Your task to perform on an android device: Search for flights from Mexico city to Boston Image 0: 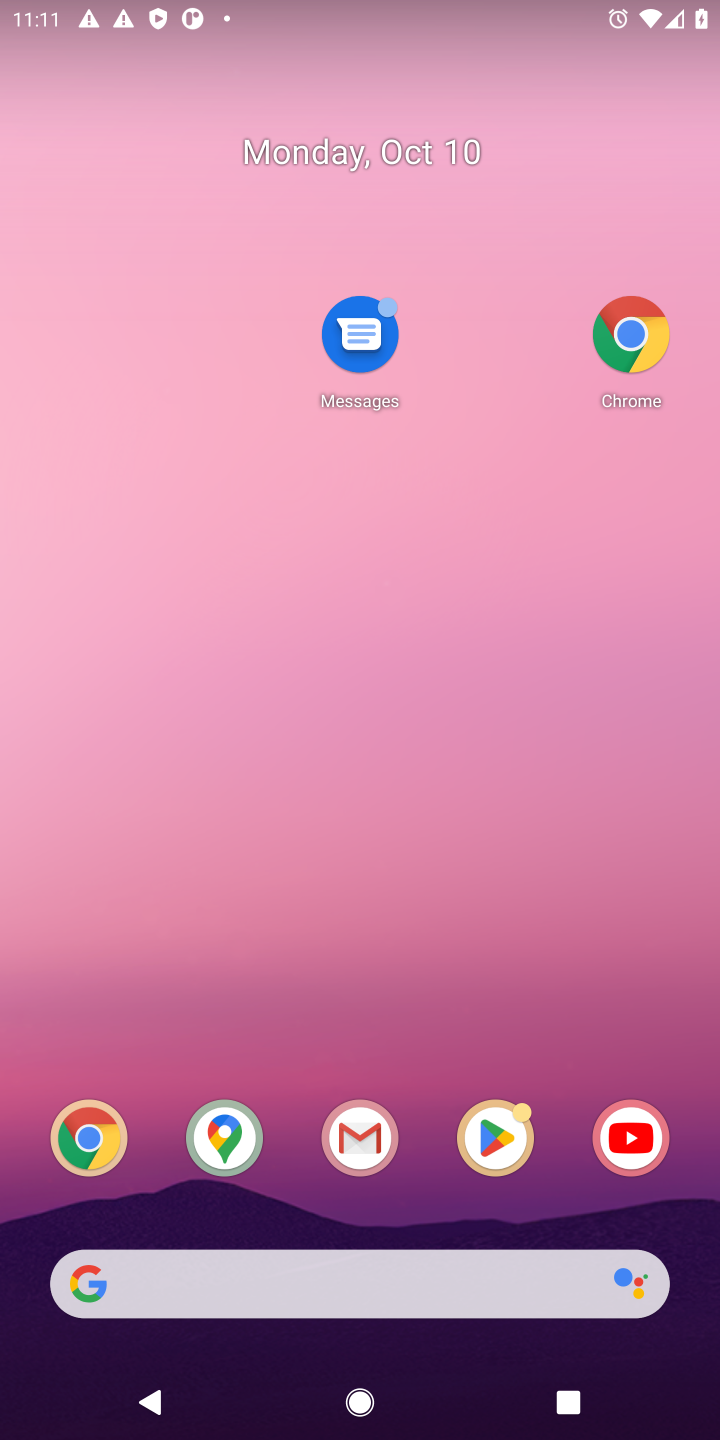
Step 0: click (644, 334)
Your task to perform on an android device: Search for flights from Mexico city to Boston Image 1: 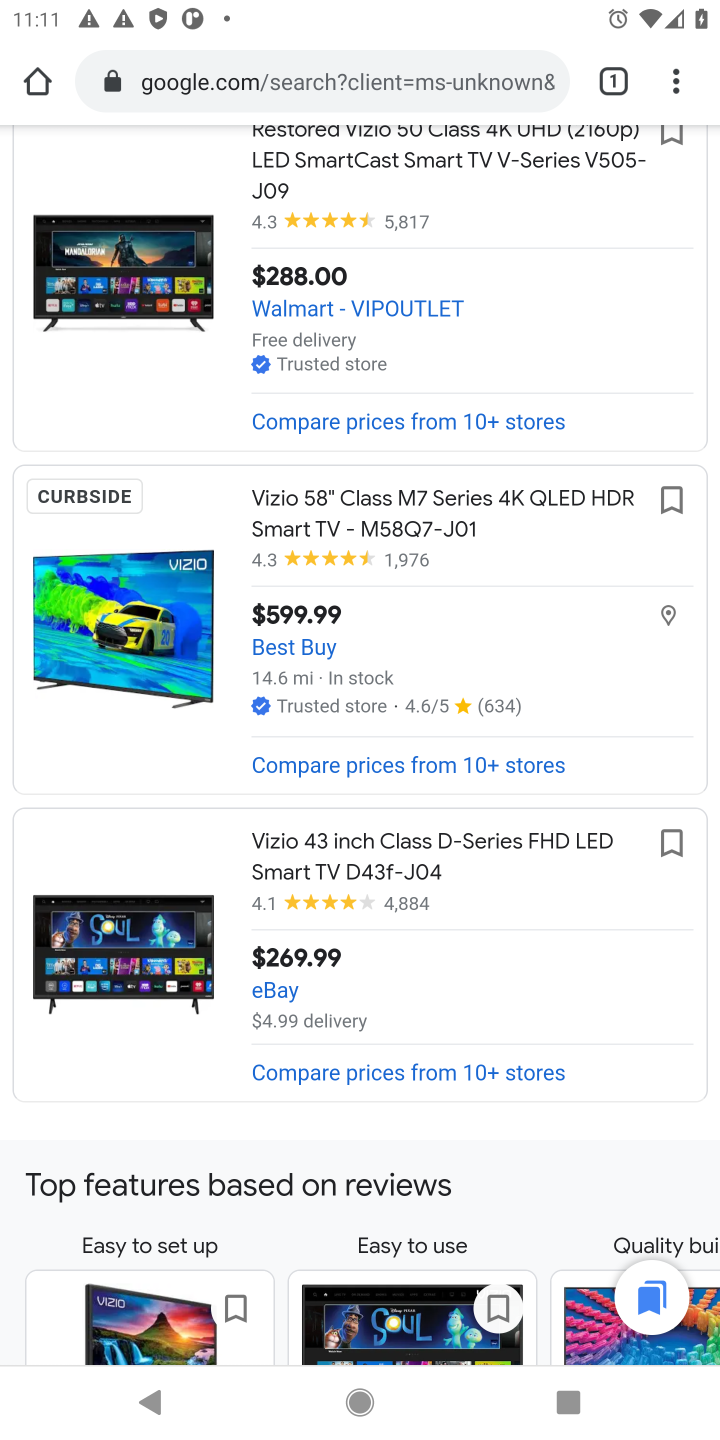
Step 1: click (361, 93)
Your task to perform on an android device: Search for flights from Mexico city to Boston Image 2: 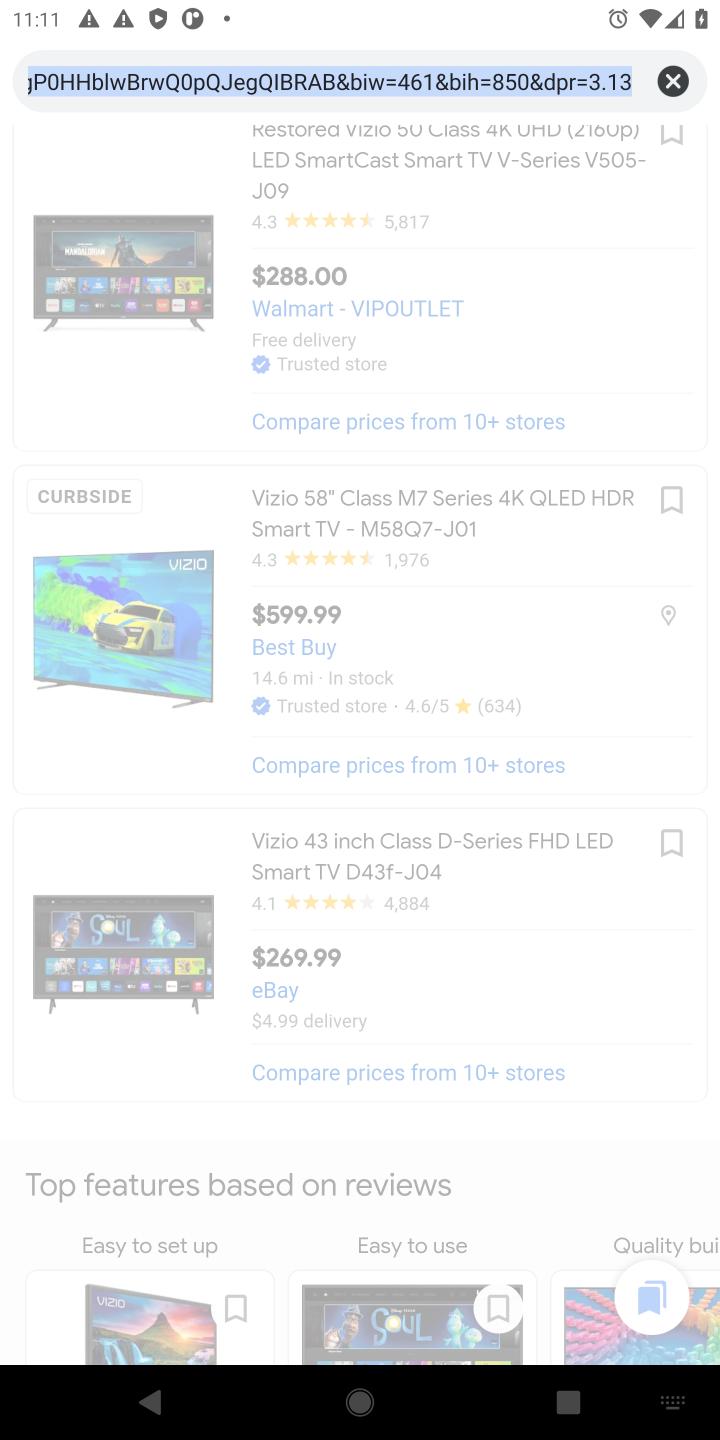
Step 2: type "flights from mexico city to boston"
Your task to perform on an android device: Search for flights from Mexico city to Boston Image 3: 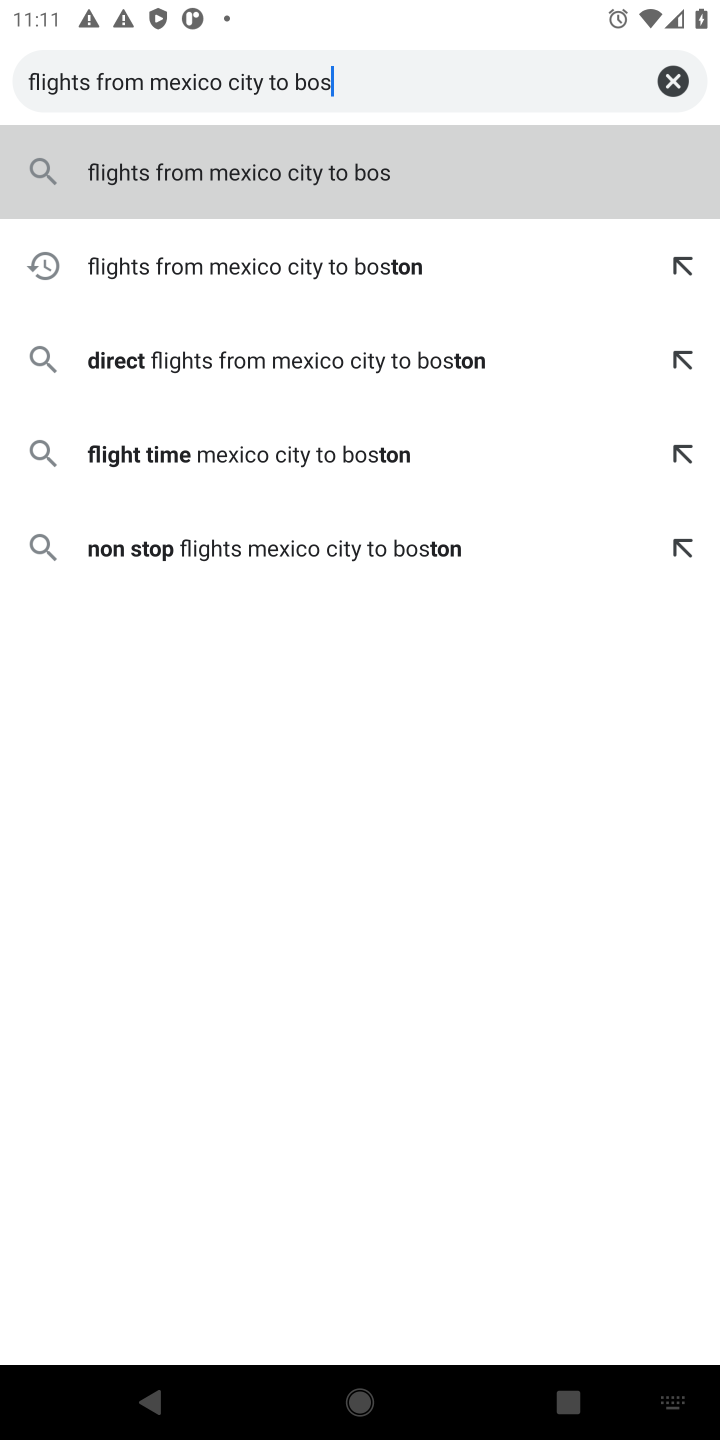
Step 3: type "ton"
Your task to perform on an android device: Search for flights from Mexico city to Boston Image 4: 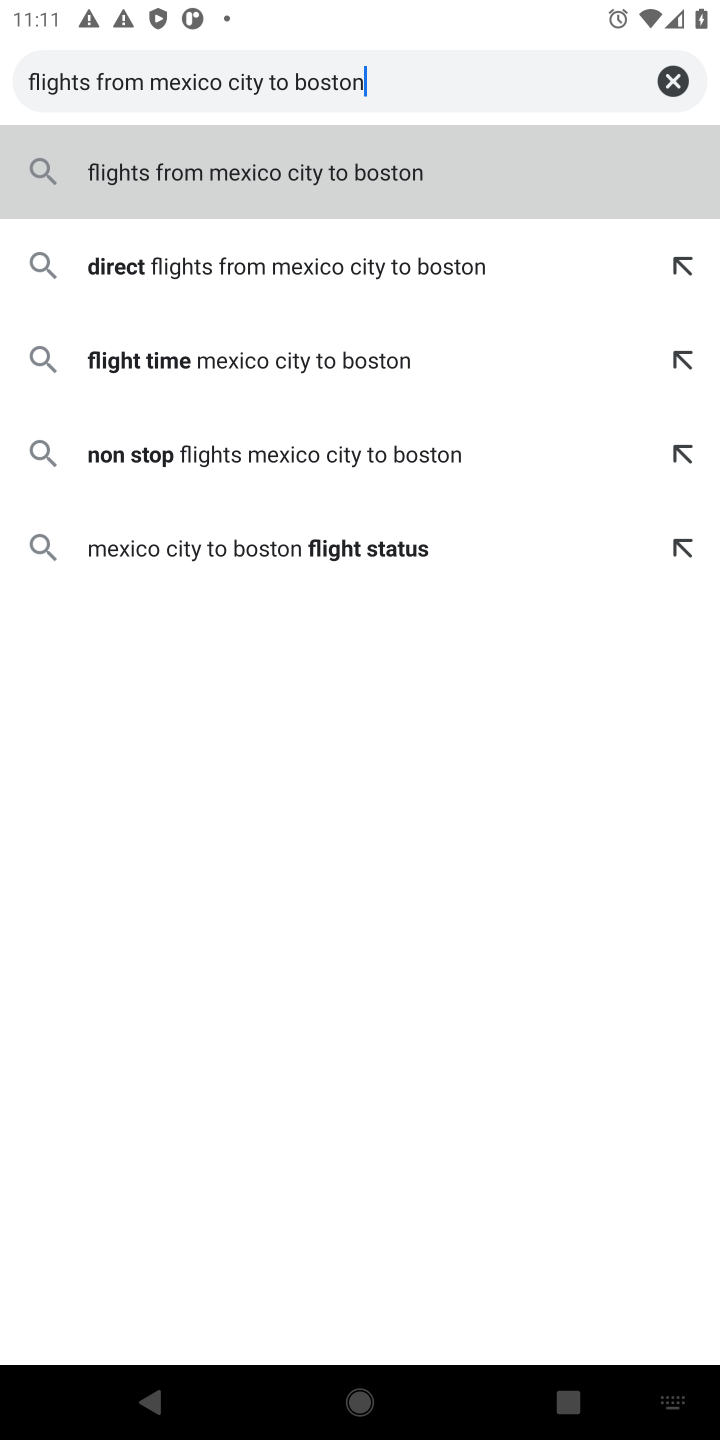
Step 4: press enter
Your task to perform on an android device: Search for flights from Mexico city to Boston Image 5: 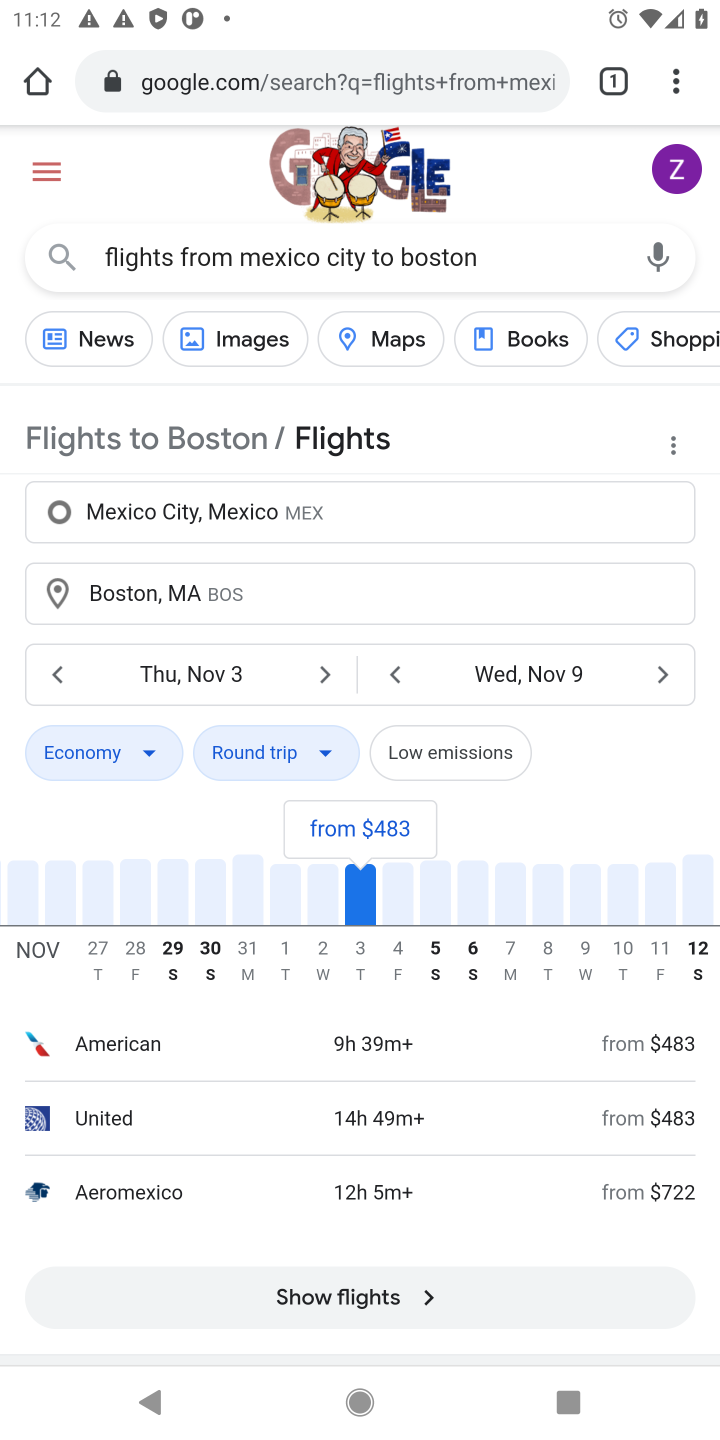
Step 5: drag from (397, 1078) to (423, 598)
Your task to perform on an android device: Search for flights from Mexico city to Boston Image 6: 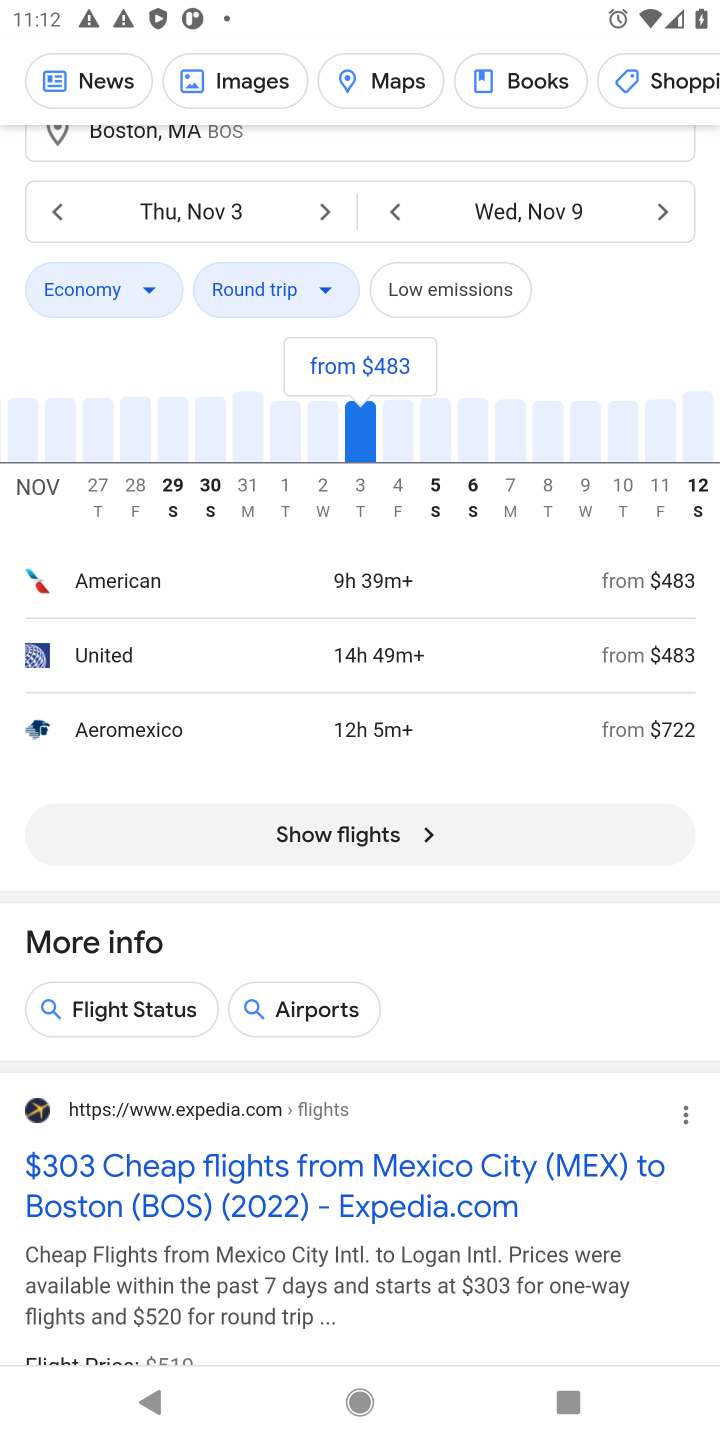
Step 6: click (423, 847)
Your task to perform on an android device: Search for flights from Mexico city to Boston Image 7: 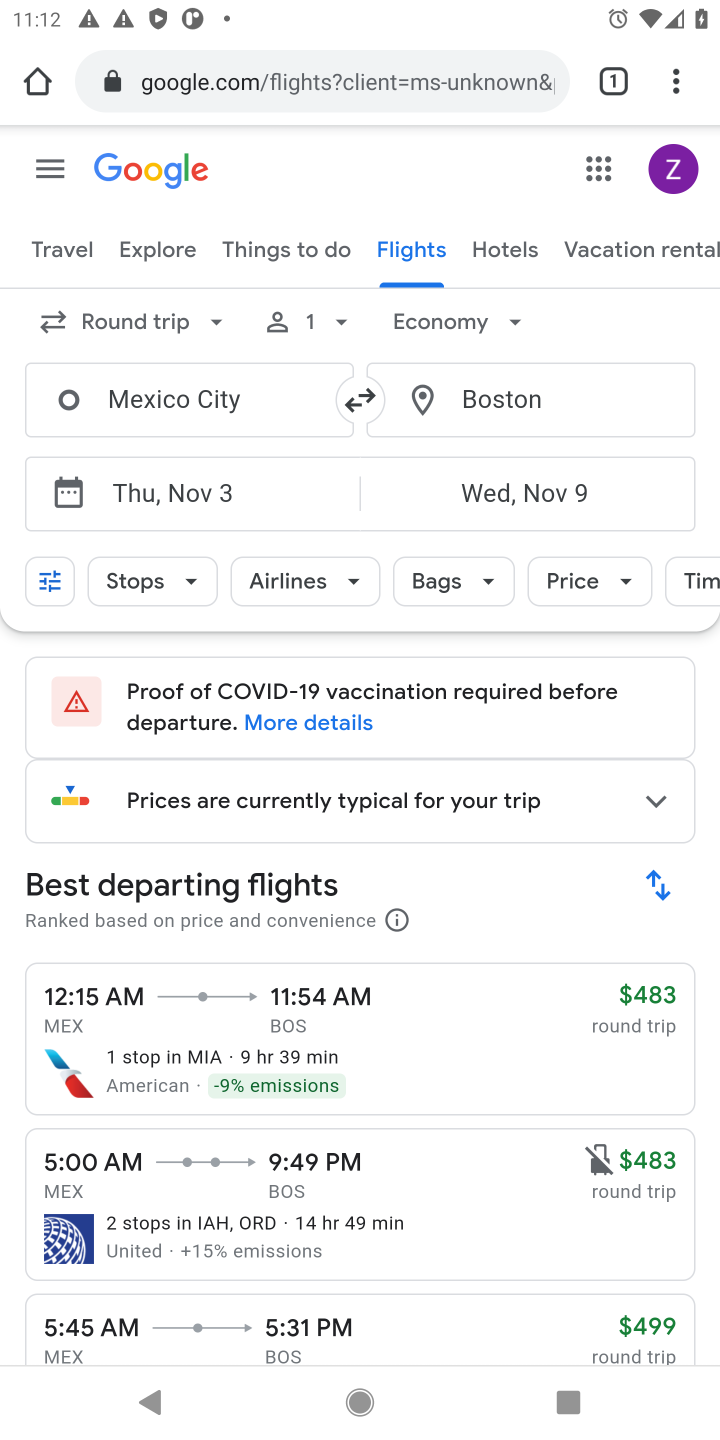
Step 7: task complete